Your task to perform on an android device: Go to Android settings Image 0: 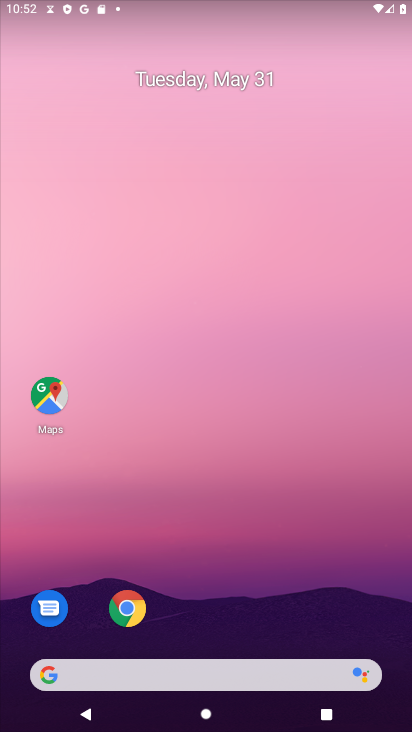
Step 0: drag from (388, 631) to (362, 1)
Your task to perform on an android device: Go to Android settings Image 1: 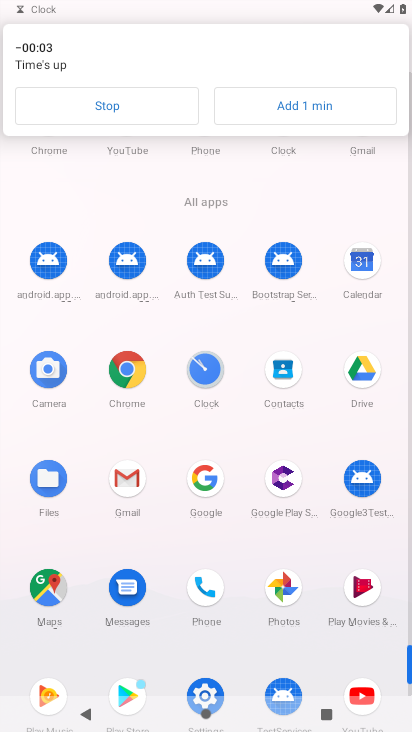
Step 1: click (410, 670)
Your task to perform on an android device: Go to Android settings Image 2: 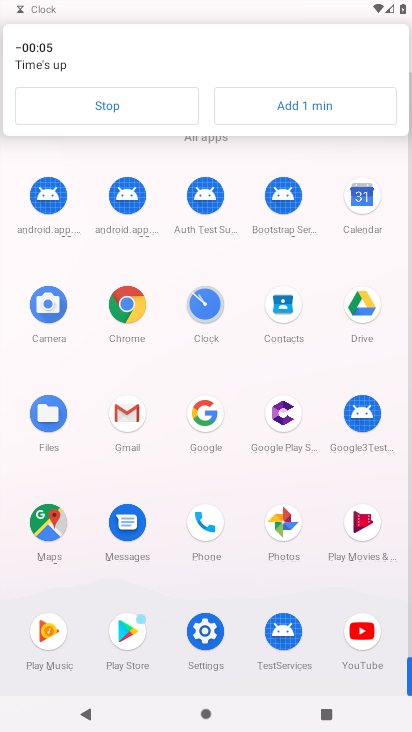
Step 2: click (217, 618)
Your task to perform on an android device: Go to Android settings Image 3: 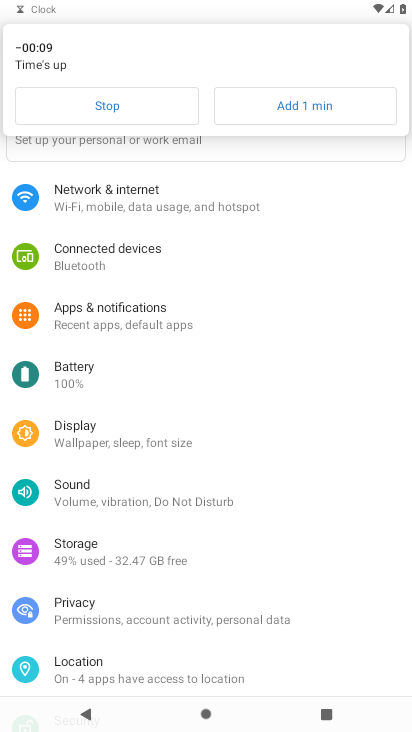
Step 3: click (103, 113)
Your task to perform on an android device: Go to Android settings Image 4: 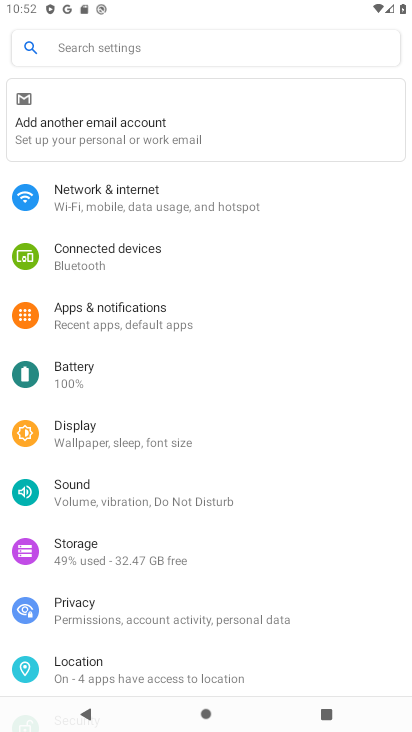
Step 4: drag from (180, 508) to (178, 262)
Your task to perform on an android device: Go to Android settings Image 5: 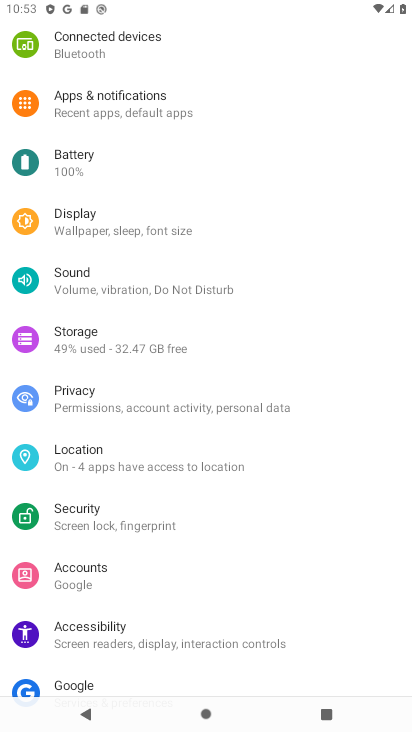
Step 5: drag from (184, 514) to (307, 129)
Your task to perform on an android device: Go to Android settings Image 6: 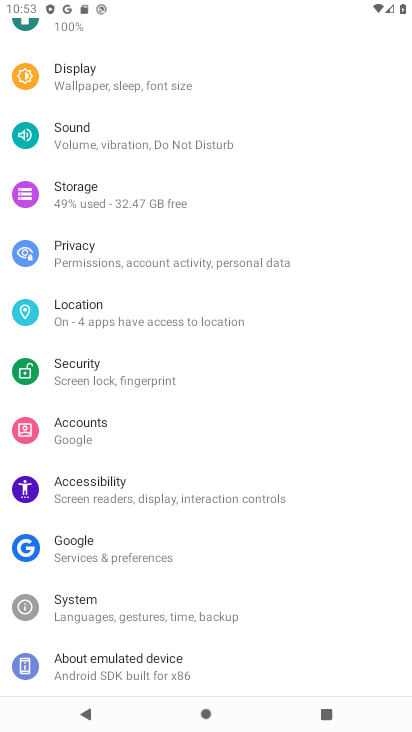
Step 6: click (199, 676)
Your task to perform on an android device: Go to Android settings Image 7: 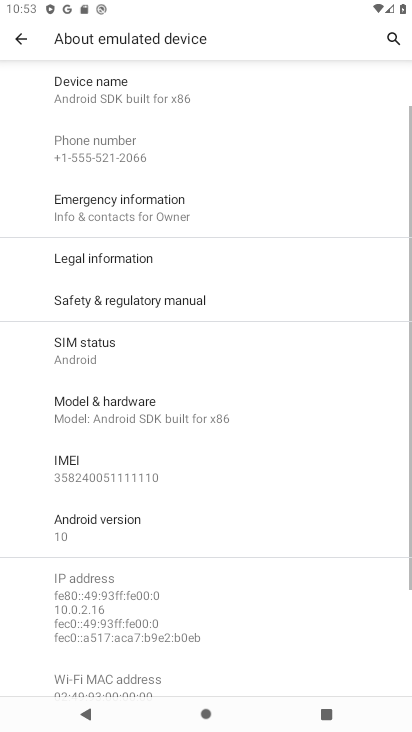
Step 7: click (96, 533)
Your task to perform on an android device: Go to Android settings Image 8: 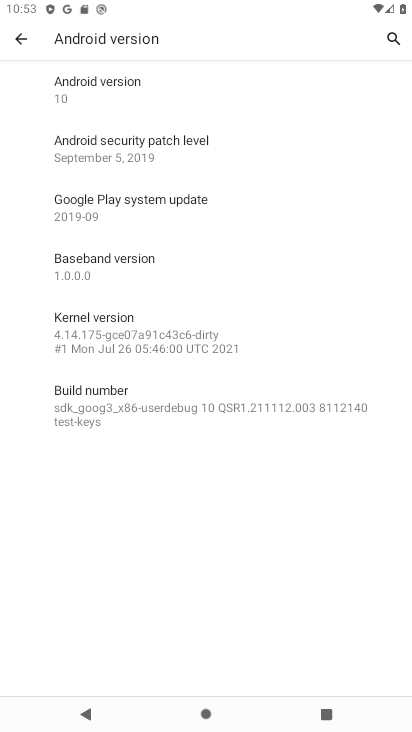
Step 8: task complete